Your task to perform on an android device: empty trash in google photos Image 0: 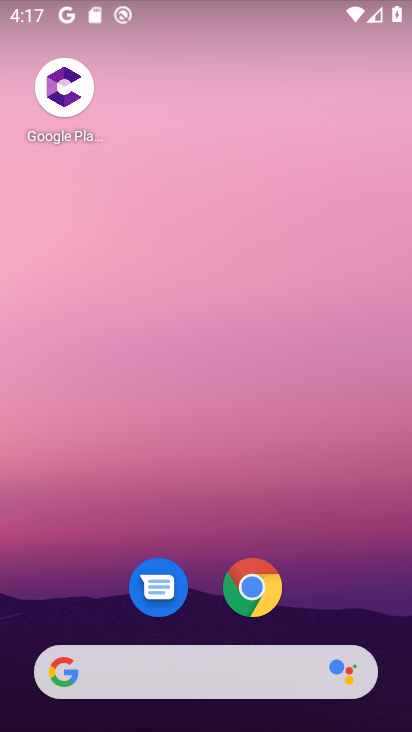
Step 0: drag from (202, 688) to (202, 113)
Your task to perform on an android device: empty trash in google photos Image 1: 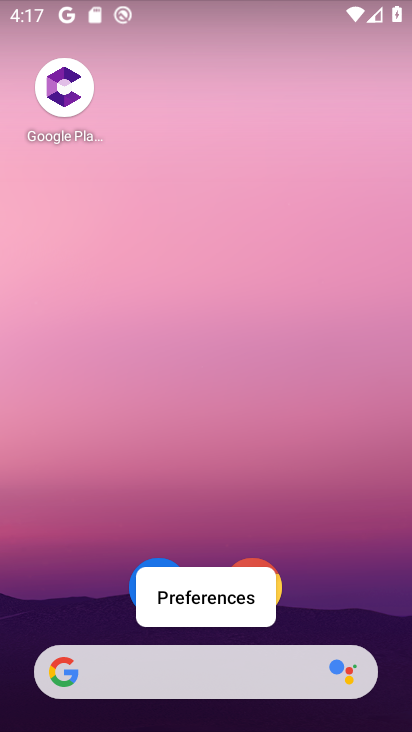
Step 1: drag from (210, 693) to (211, 58)
Your task to perform on an android device: empty trash in google photos Image 2: 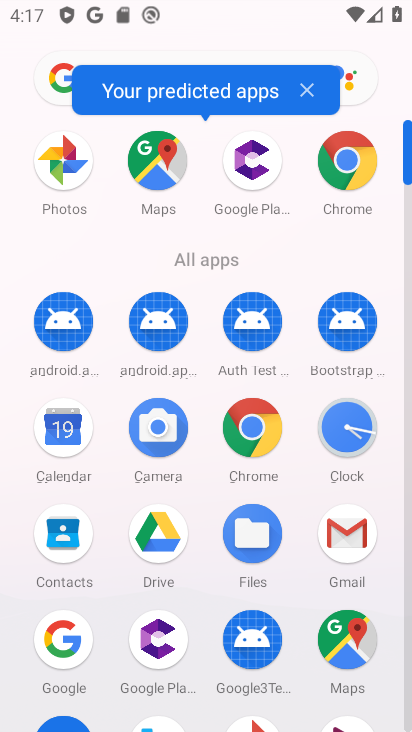
Step 2: click (57, 155)
Your task to perform on an android device: empty trash in google photos Image 3: 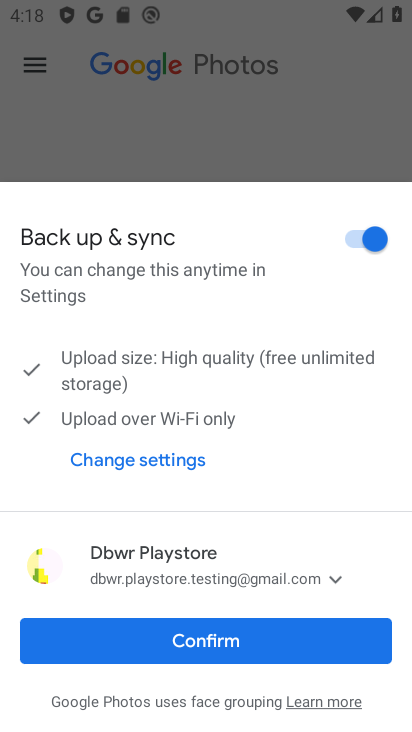
Step 3: click (198, 648)
Your task to perform on an android device: empty trash in google photos Image 4: 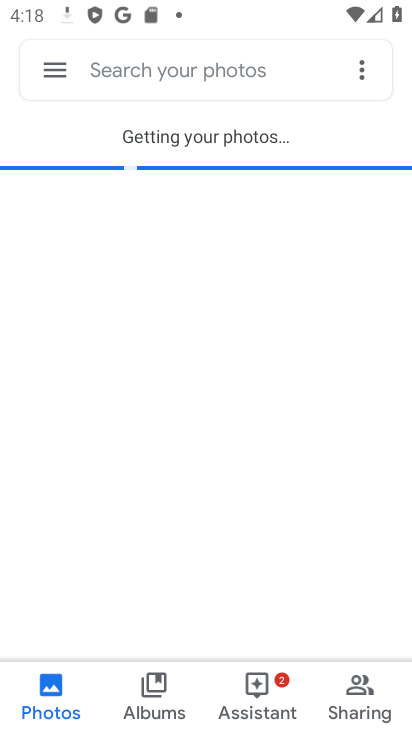
Step 4: click (55, 70)
Your task to perform on an android device: empty trash in google photos Image 5: 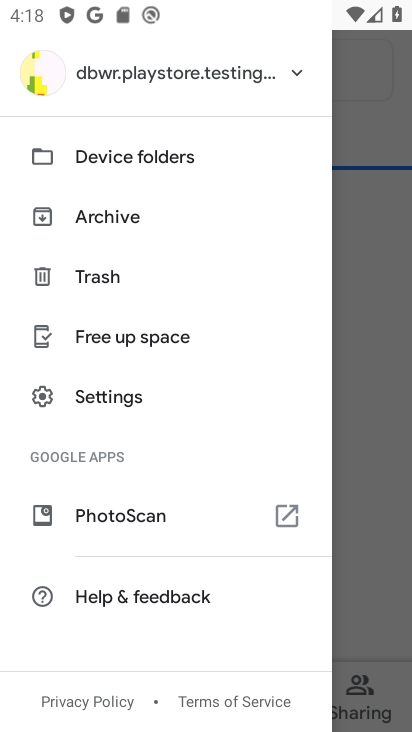
Step 5: click (91, 275)
Your task to perform on an android device: empty trash in google photos Image 6: 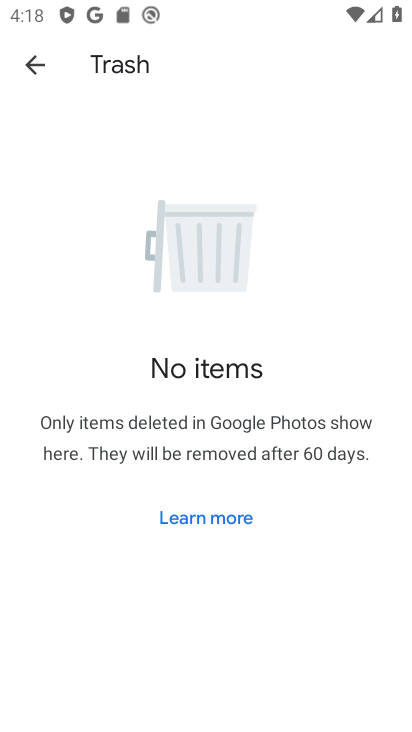
Step 6: task complete